Your task to perform on an android device: set the timer Image 0: 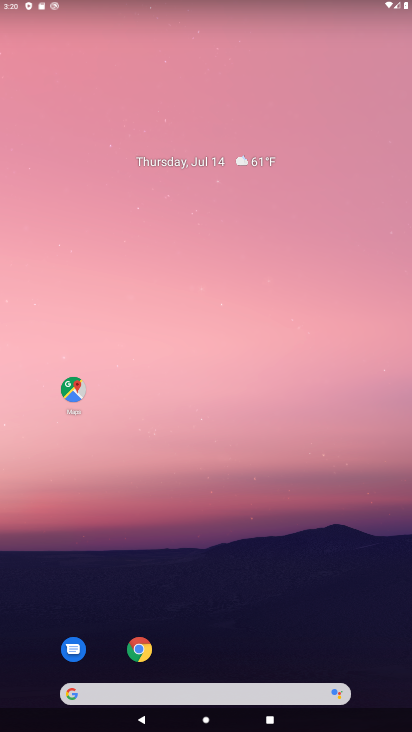
Step 0: drag from (184, 649) to (151, 122)
Your task to perform on an android device: set the timer Image 1: 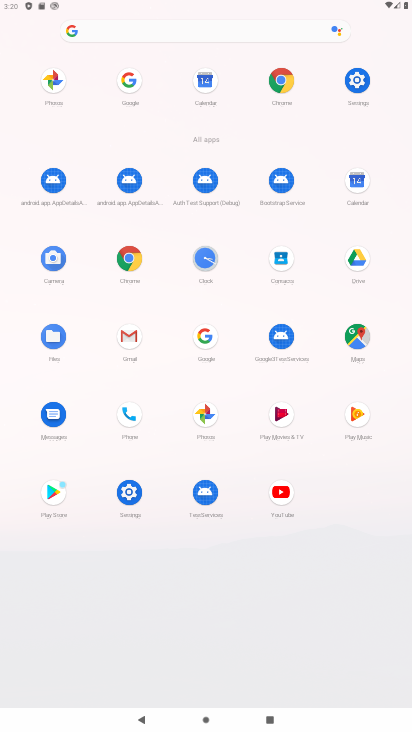
Step 1: click (194, 260)
Your task to perform on an android device: set the timer Image 2: 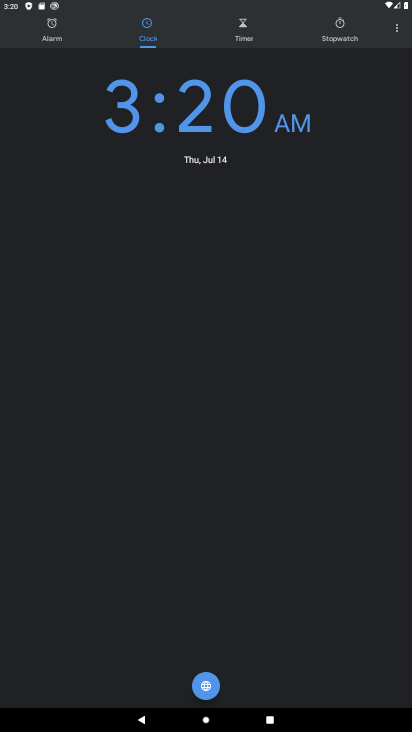
Step 2: click (238, 27)
Your task to perform on an android device: set the timer Image 3: 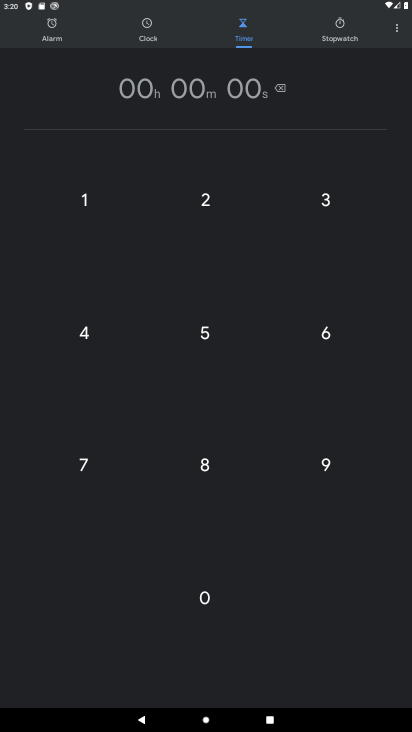
Step 3: click (196, 205)
Your task to perform on an android device: set the timer Image 4: 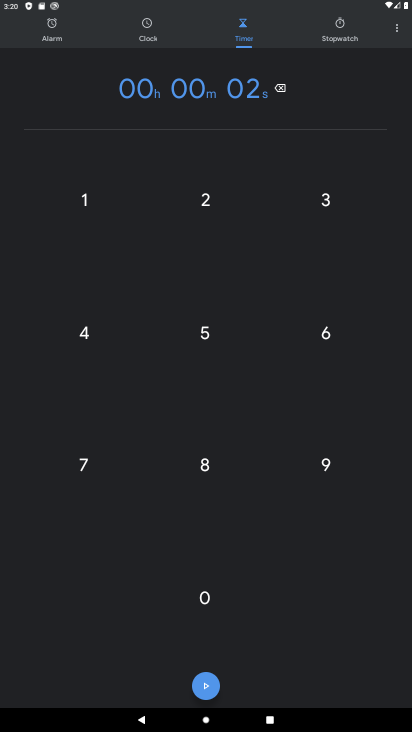
Step 4: click (211, 678)
Your task to perform on an android device: set the timer Image 5: 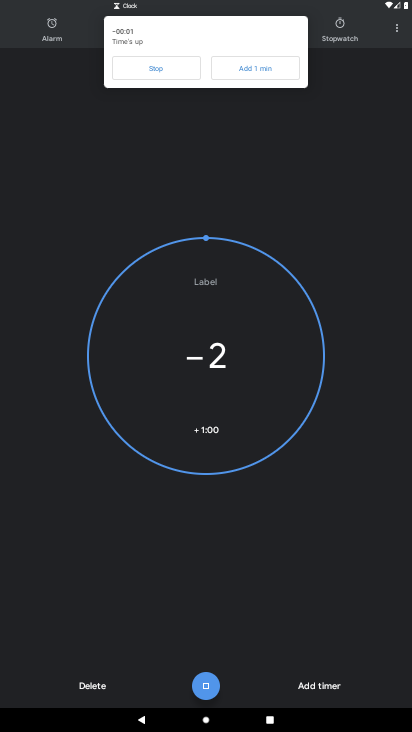
Step 5: task complete